Your task to perform on an android device: Show me popular games on the Play Store Image 0: 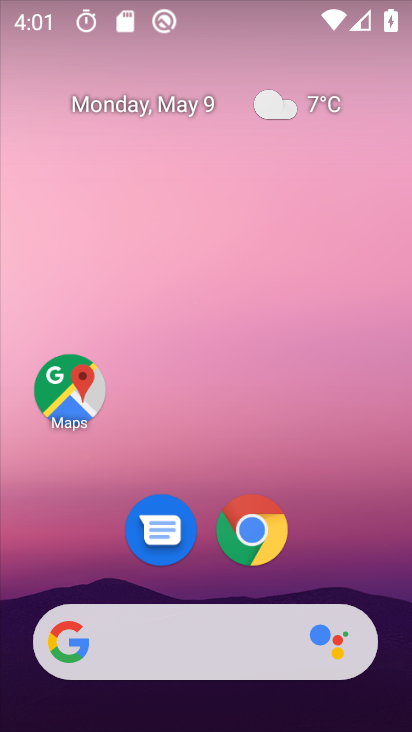
Step 0: drag from (213, 551) to (200, 178)
Your task to perform on an android device: Show me popular games on the Play Store Image 1: 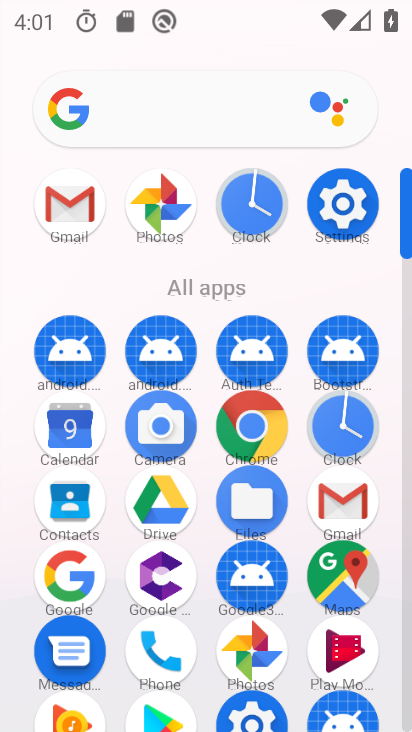
Step 1: click (166, 718)
Your task to perform on an android device: Show me popular games on the Play Store Image 2: 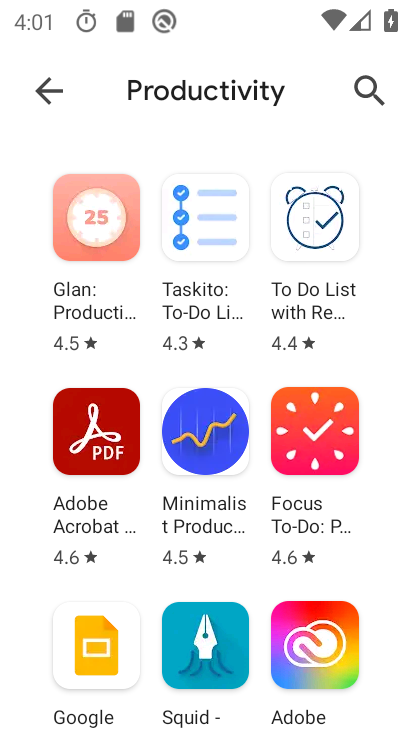
Step 2: click (54, 108)
Your task to perform on an android device: Show me popular games on the Play Store Image 3: 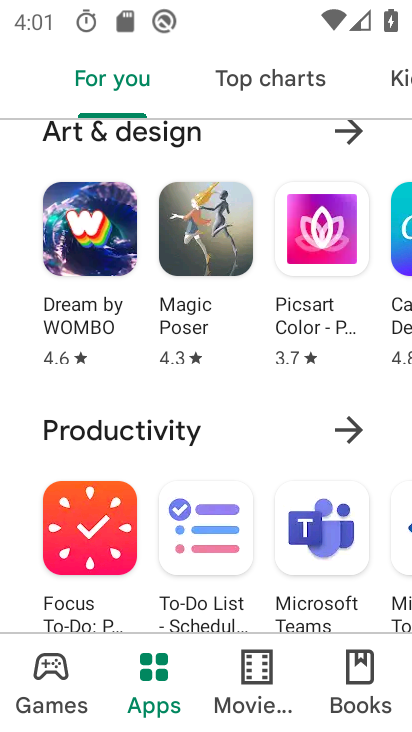
Step 3: click (39, 690)
Your task to perform on an android device: Show me popular games on the Play Store Image 4: 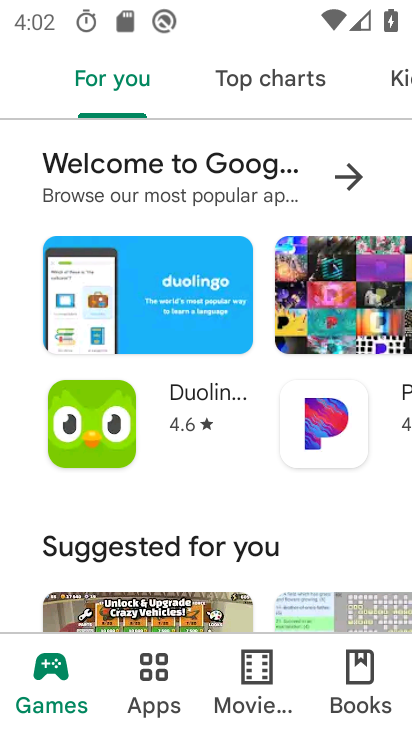
Step 4: drag from (186, 596) to (268, 215)
Your task to perform on an android device: Show me popular games on the Play Store Image 5: 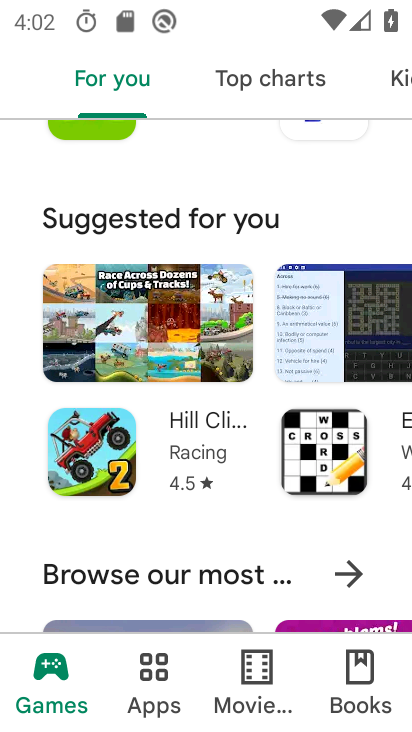
Step 5: drag from (225, 495) to (245, 378)
Your task to perform on an android device: Show me popular games on the Play Store Image 6: 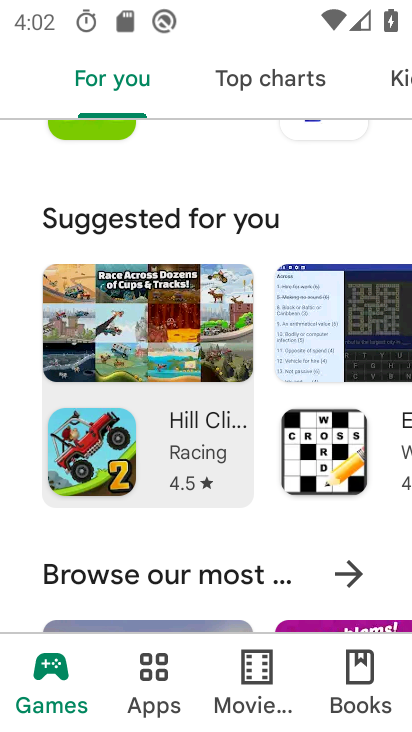
Step 6: click (343, 569)
Your task to perform on an android device: Show me popular games on the Play Store Image 7: 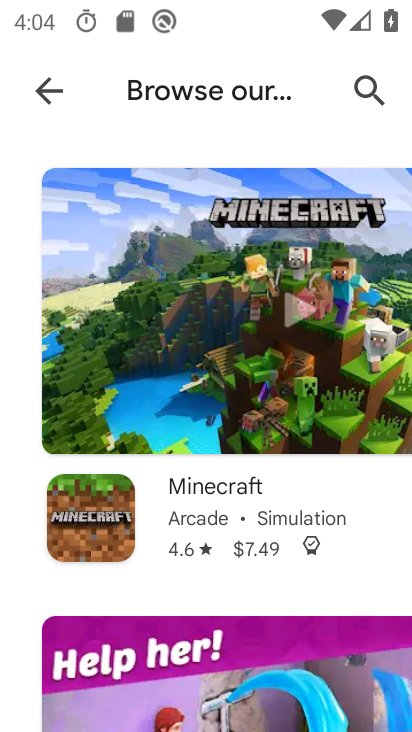
Step 7: task complete